Your task to perform on an android device: allow notifications from all sites in the chrome app Image 0: 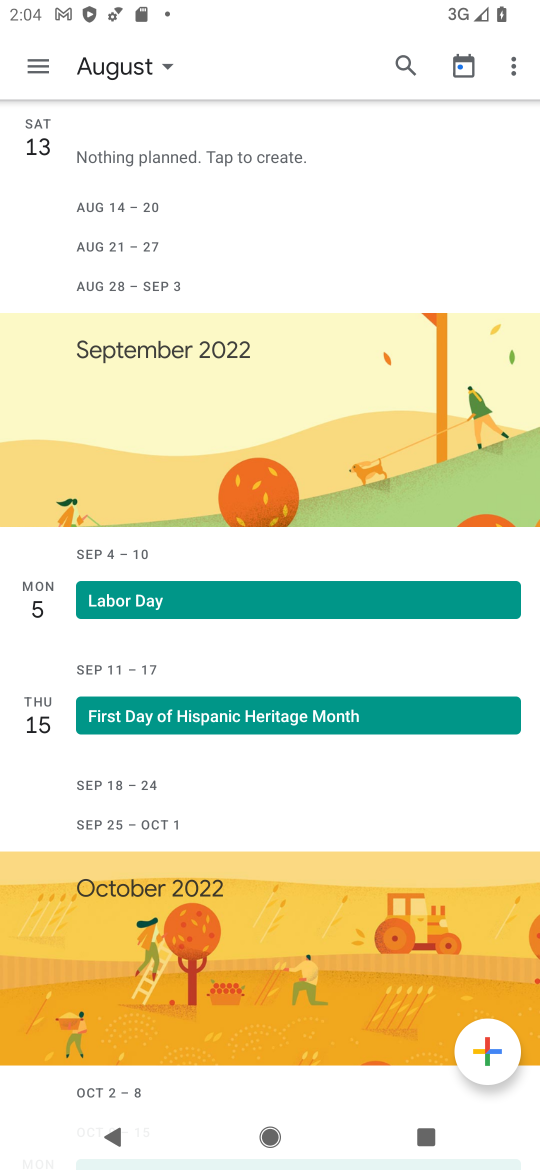
Step 0: press home button
Your task to perform on an android device: allow notifications from all sites in the chrome app Image 1: 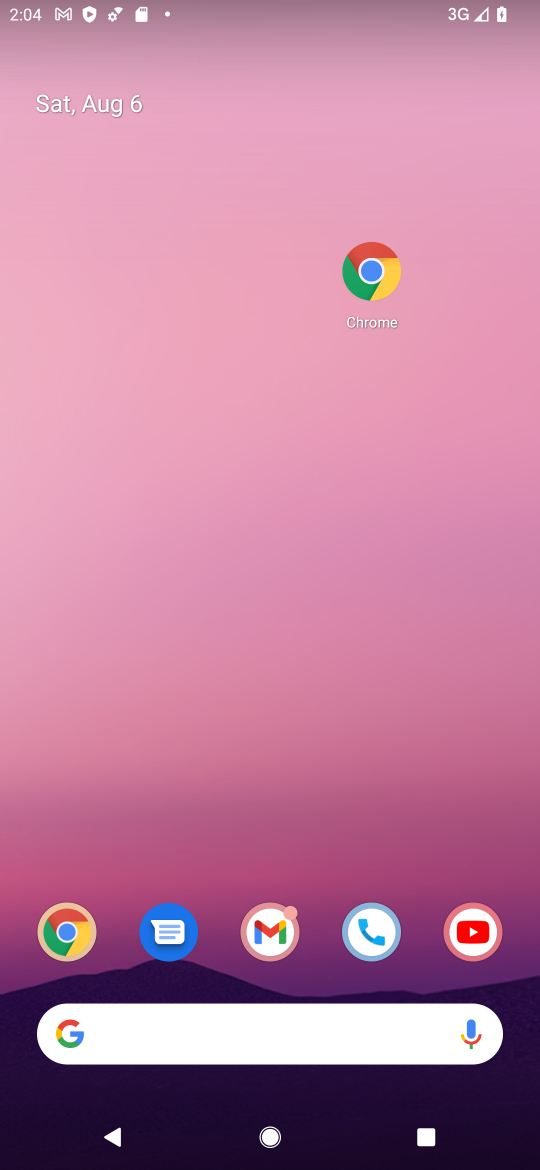
Step 1: click (377, 261)
Your task to perform on an android device: allow notifications from all sites in the chrome app Image 2: 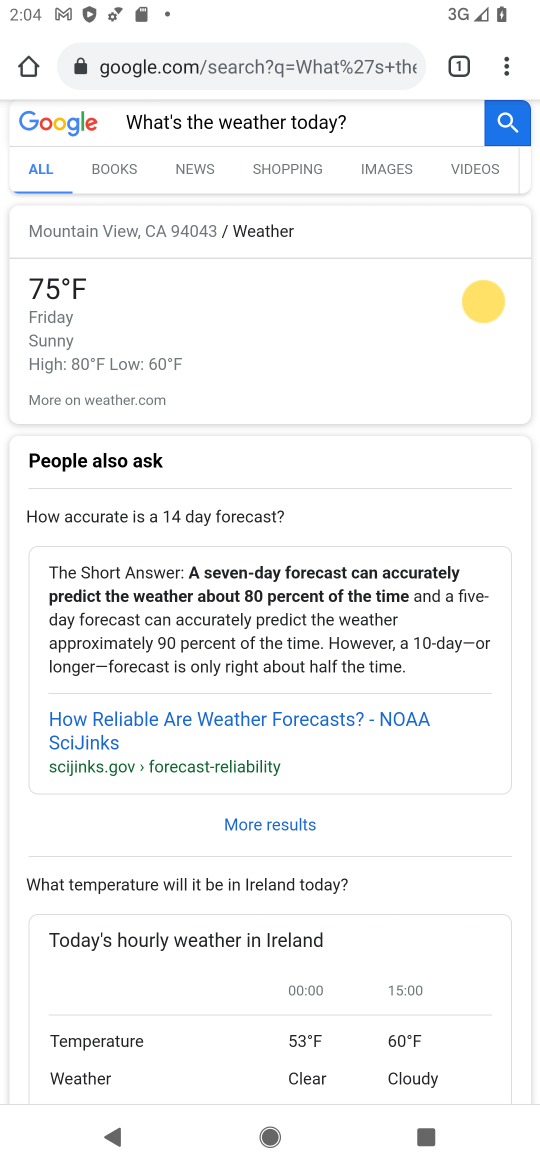
Step 2: drag from (498, 60) to (331, 873)
Your task to perform on an android device: allow notifications from all sites in the chrome app Image 3: 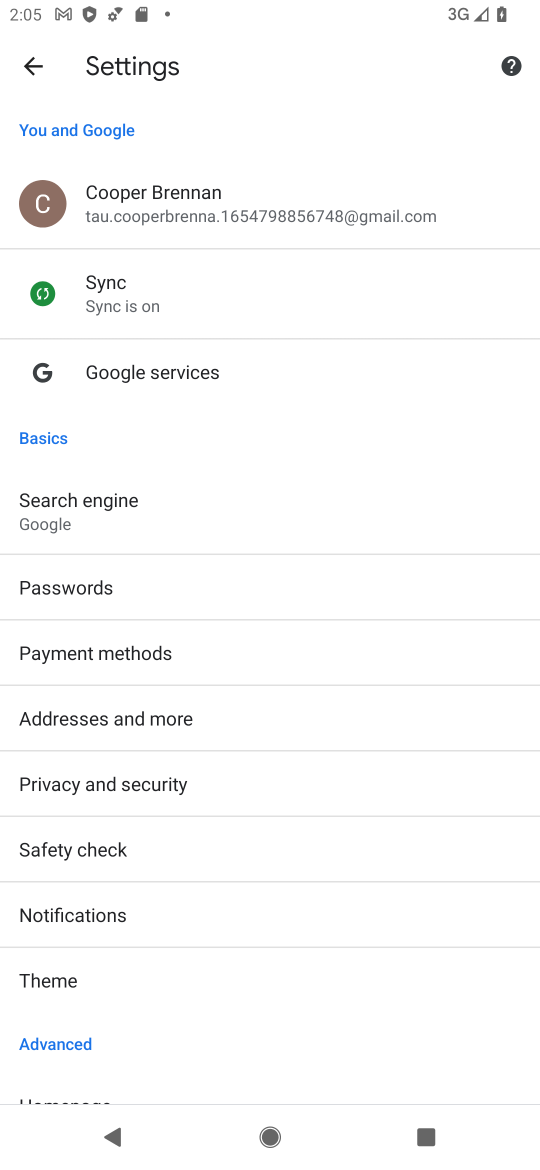
Step 3: drag from (240, 906) to (258, 365)
Your task to perform on an android device: allow notifications from all sites in the chrome app Image 4: 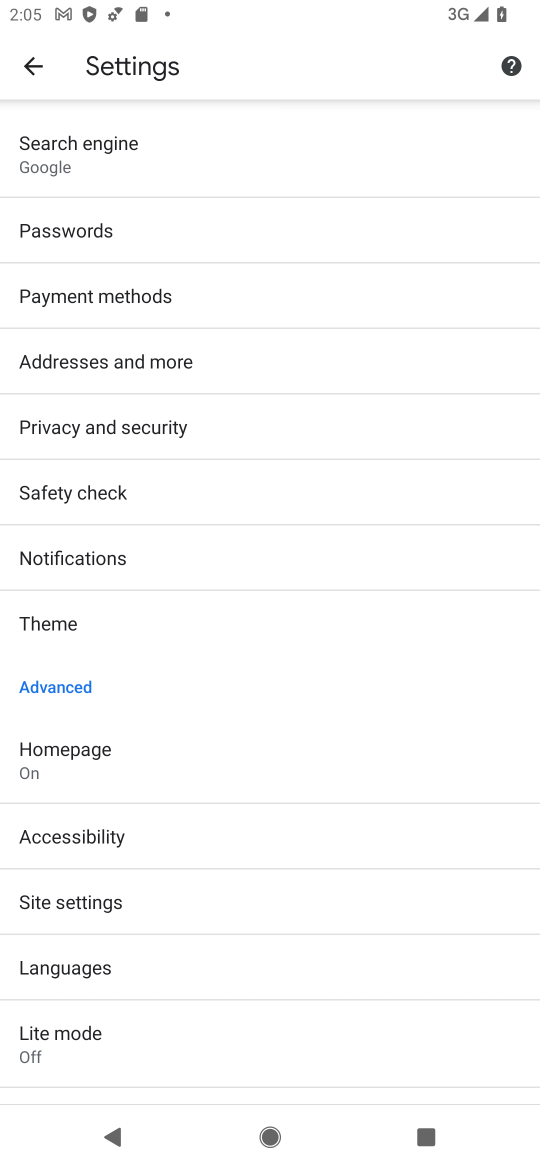
Step 4: click (53, 908)
Your task to perform on an android device: allow notifications from all sites in the chrome app Image 5: 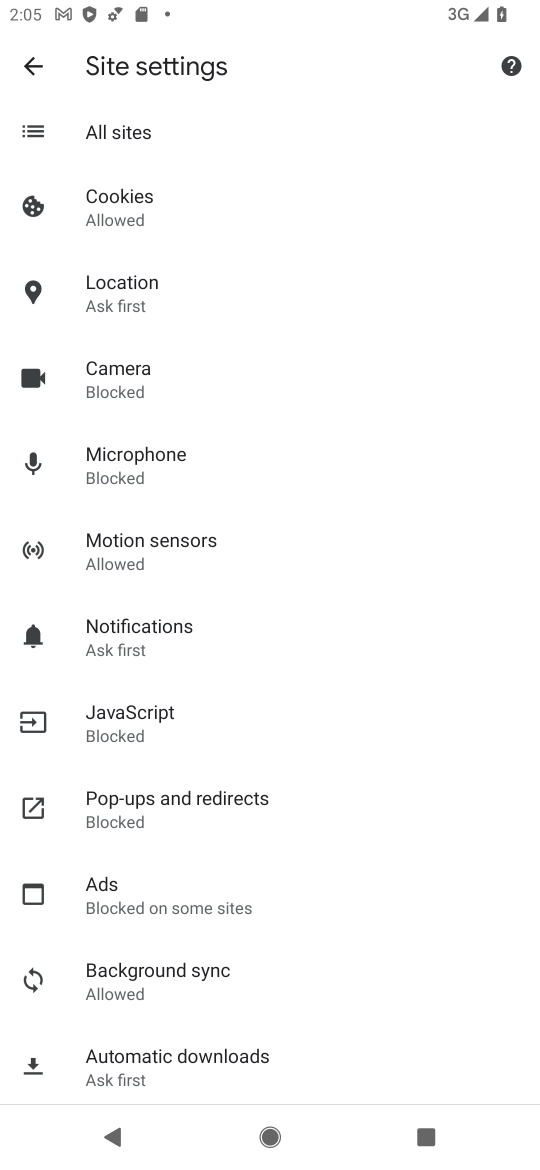
Step 5: click (108, 137)
Your task to perform on an android device: allow notifications from all sites in the chrome app Image 6: 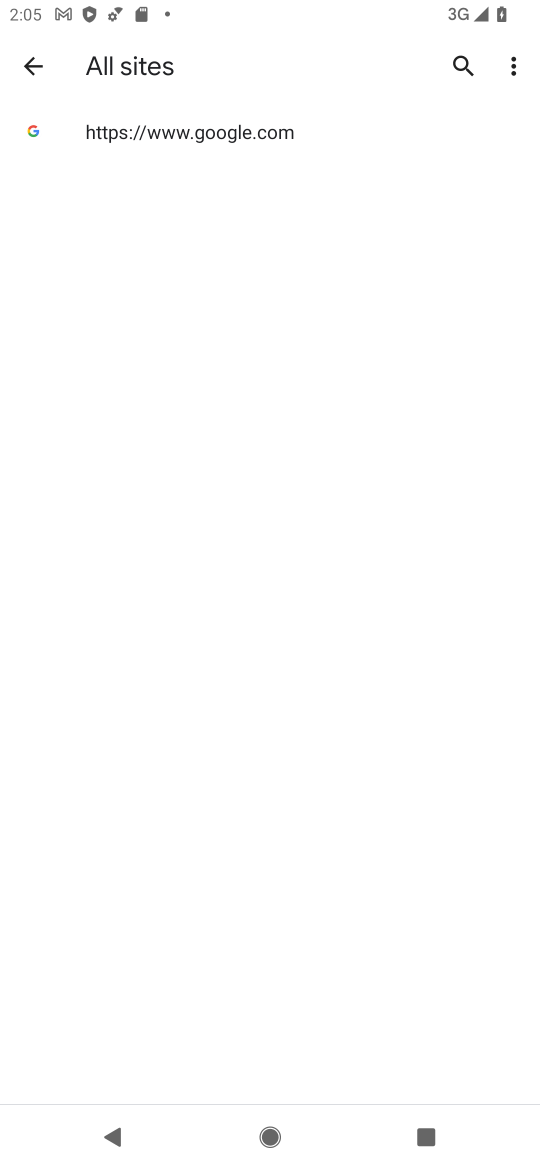
Step 6: click (157, 131)
Your task to perform on an android device: allow notifications from all sites in the chrome app Image 7: 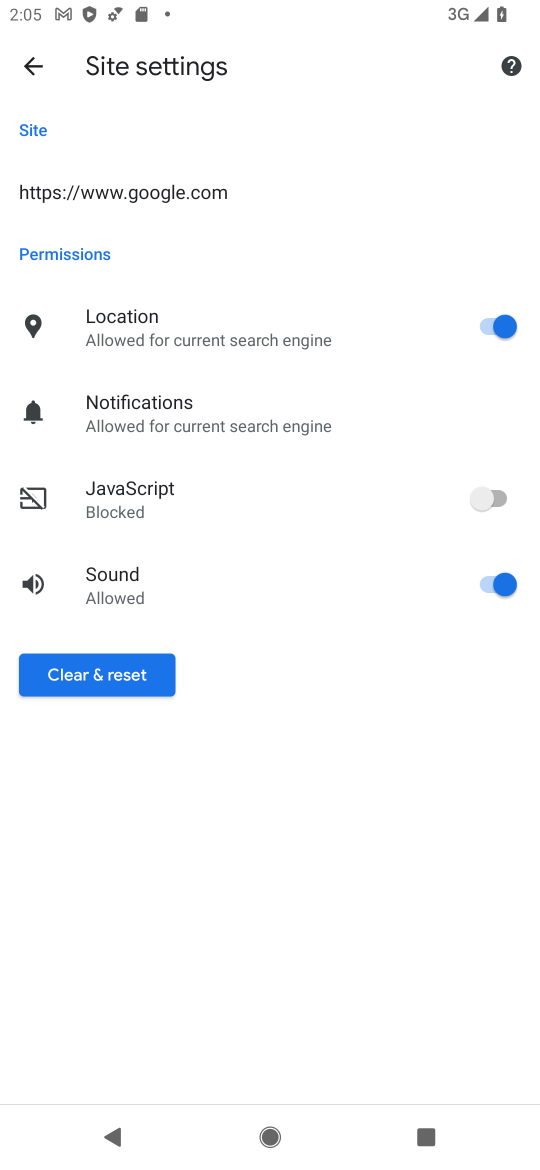
Step 7: click (213, 402)
Your task to perform on an android device: allow notifications from all sites in the chrome app Image 8: 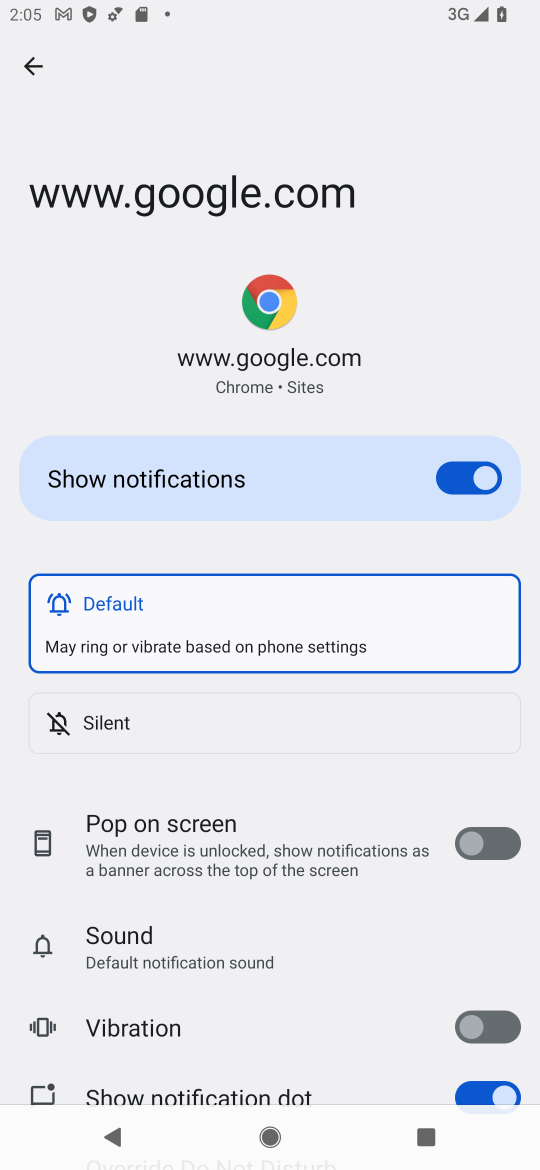
Step 8: task complete